Your task to perform on an android device: check out phone information Image 0: 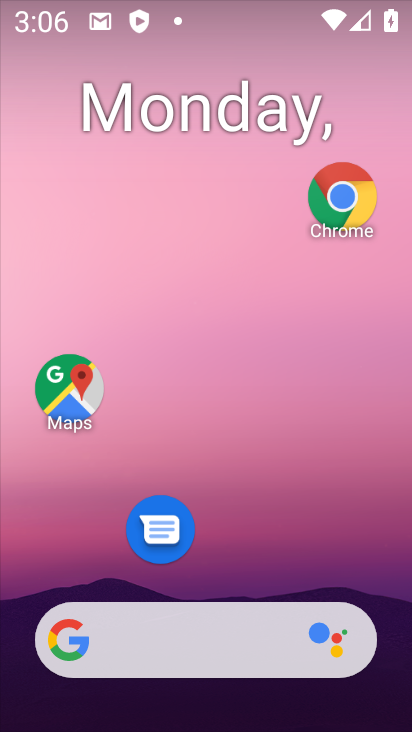
Step 0: drag from (215, 507) to (261, 56)
Your task to perform on an android device: check out phone information Image 1: 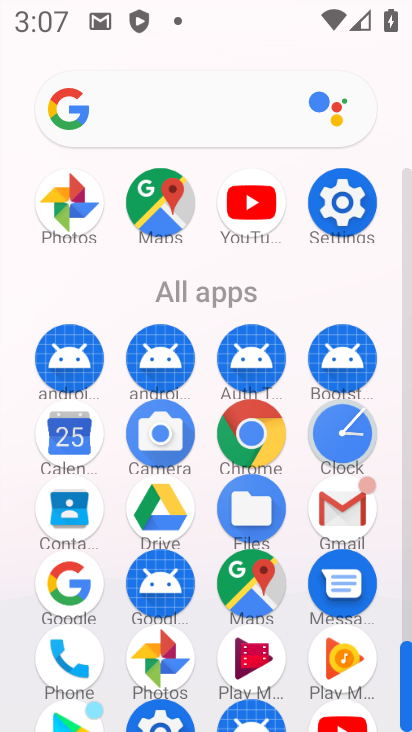
Step 1: drag from (154, 661) to (229, 322)
Your task to perform on an android device: check out phone information Image 2: 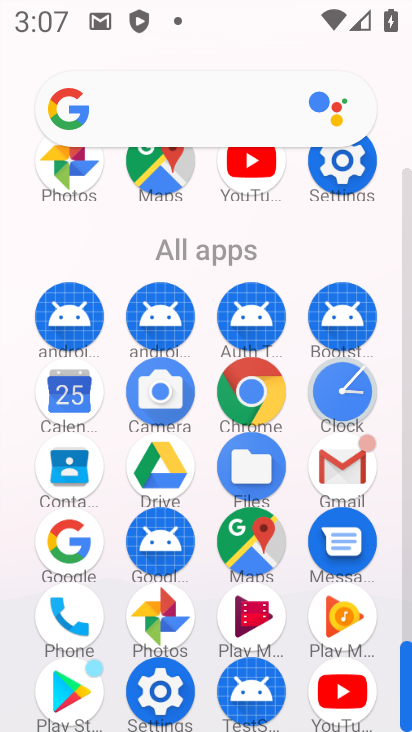
Step 2: click (165, 697)
Your task to perform on an android device: check out phone information Image 3: 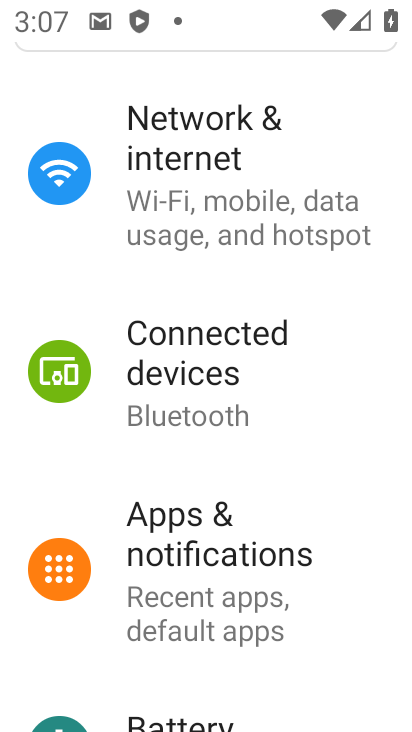
Step 3: drag from (192, 725) to (353, 261)
Your task to perform on an android device: check out phone information Image 4: 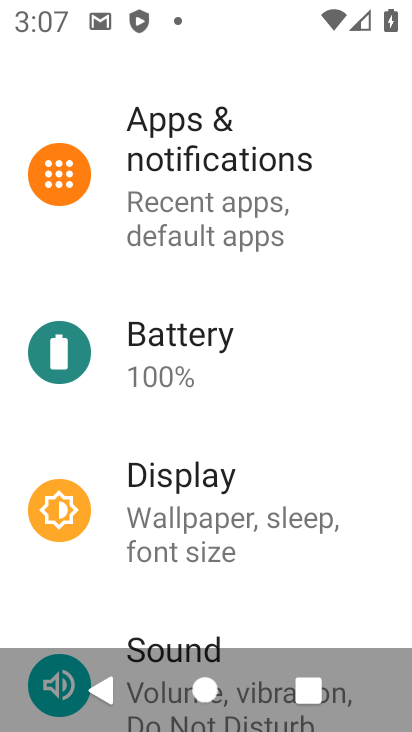
Step 4: drag from (251, 603) to (405, 123)
Your task to perform on an android device: check out phone information Image 5: 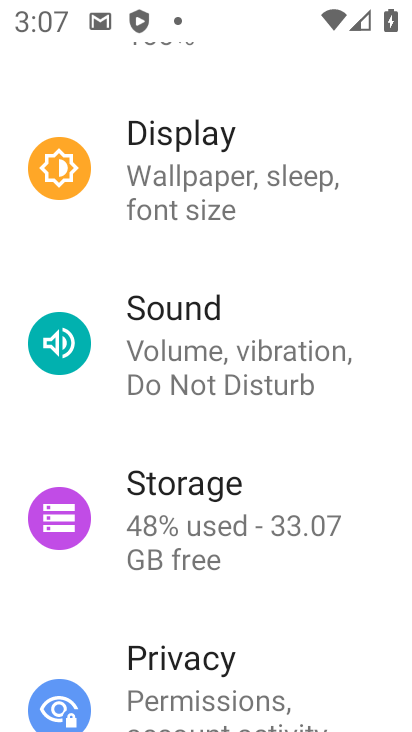
Step 5: drag from (178, 661) to (288, 104)
Your task to perform on an android device: check out phone information Image 6: 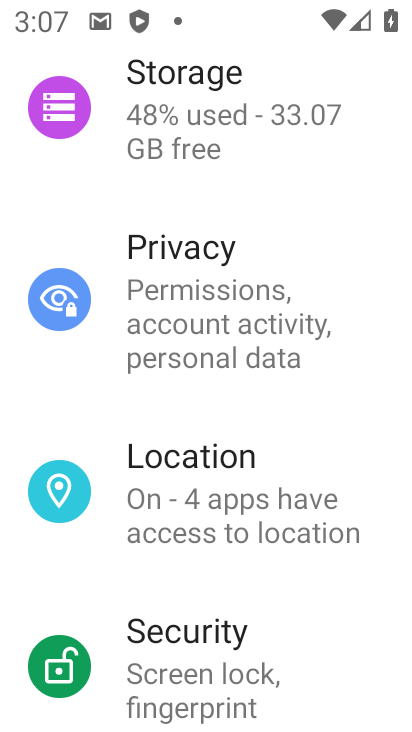
Step 6: drag from (192, 564) to (283, 24)
Your task to perform on an android device: check out phone information Image 7: 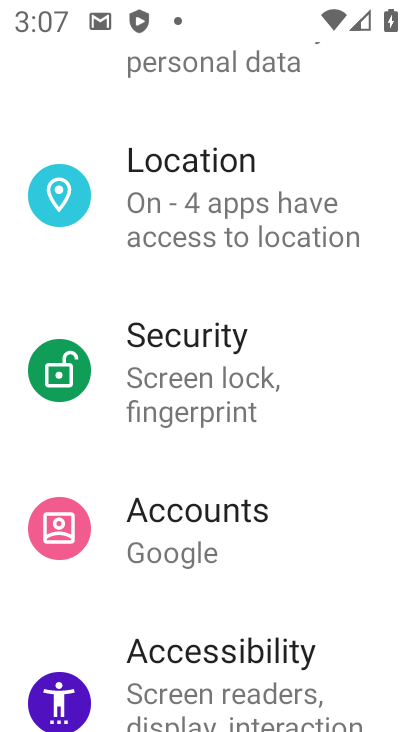
Step 7: drag from (141, 609) to (244, 170)
Your task to perform on an android device: check out phone information Image 8: 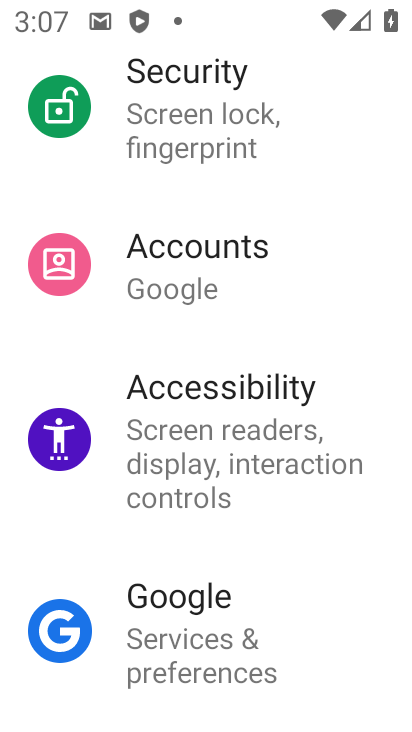
Step 8: drag from (180, 614) to (298, 134)
Your task to perform on an android device: check out phone information Image 9: 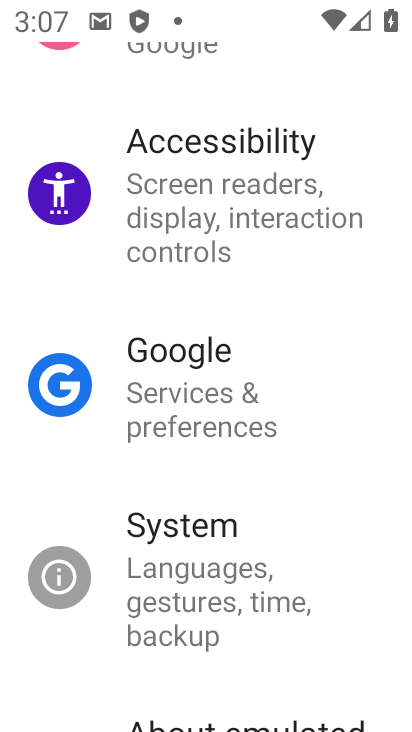
Step 9: drag from (211, 638) to (332, 145)
Your task to perform on an android device: check out phone information Image 10: 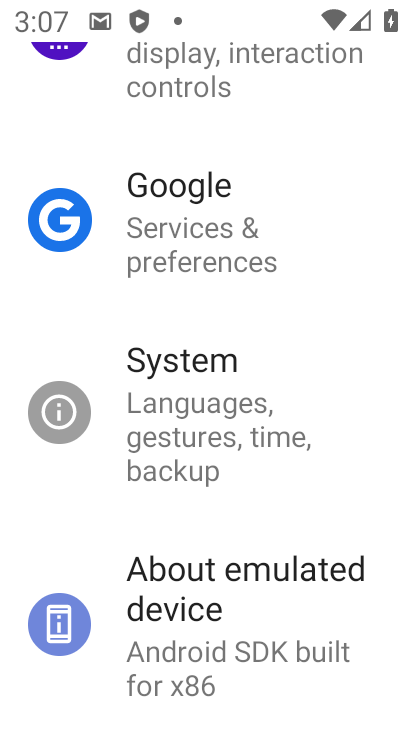
Step 10: click (277, 602)
Your task to perform on an android device: check out phone information Image 11: 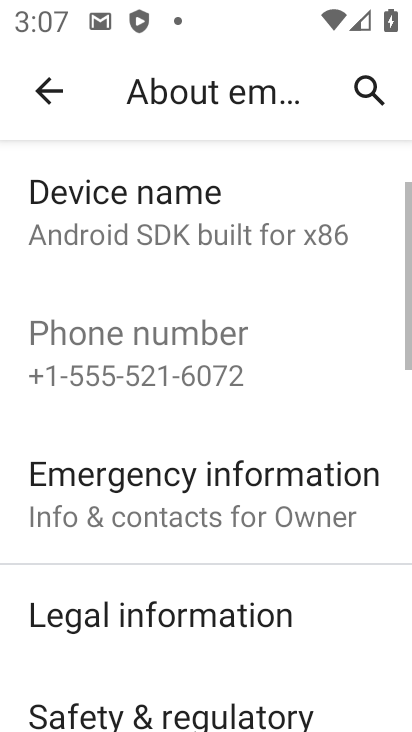
Step 11: task complete